Your task to perform on an android device: open a new tab in the chrome app Image 0: 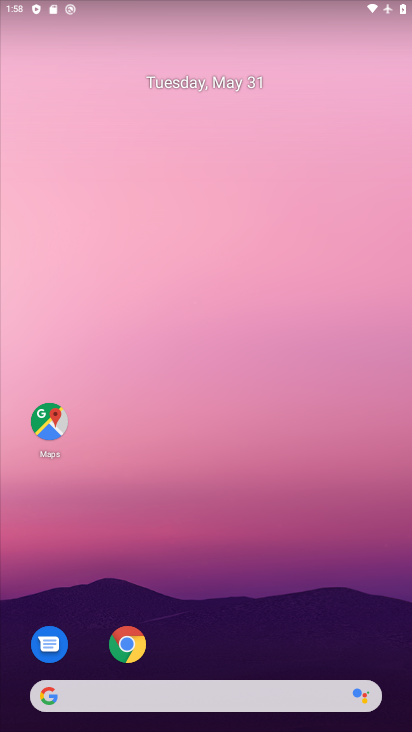
Step 0: click (124, 648)
Your task to perform on an android device: open a new tab in the chrome app Image 1: 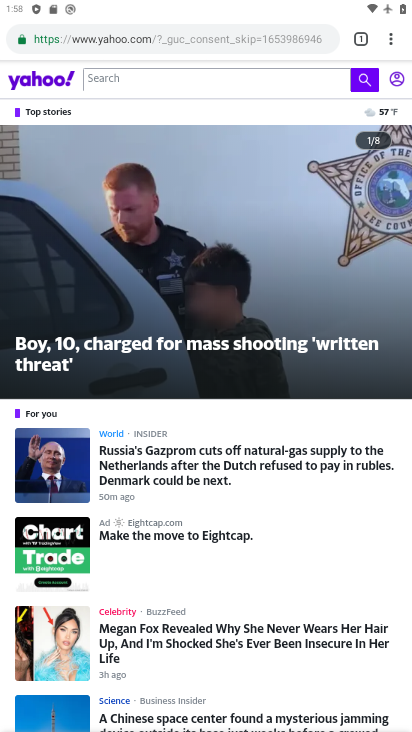
Step 1: click (396, 44)
Your task to perform on an android device: open a new tab in the chrome app Image 2: 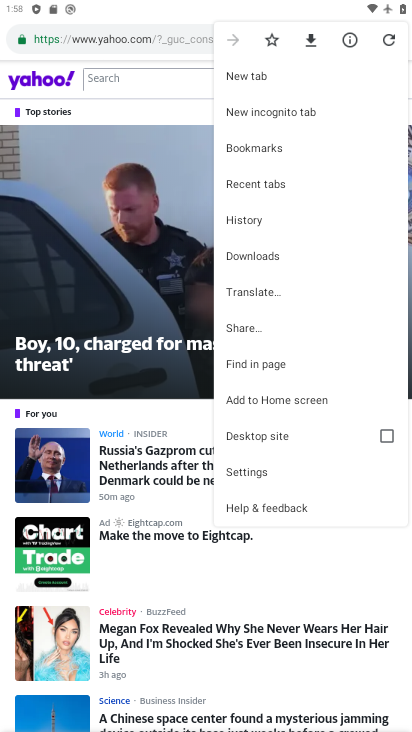
Step 2: click (285, 97)
Your task to perform on an android device: open a new tab in the chrome app Image 3: 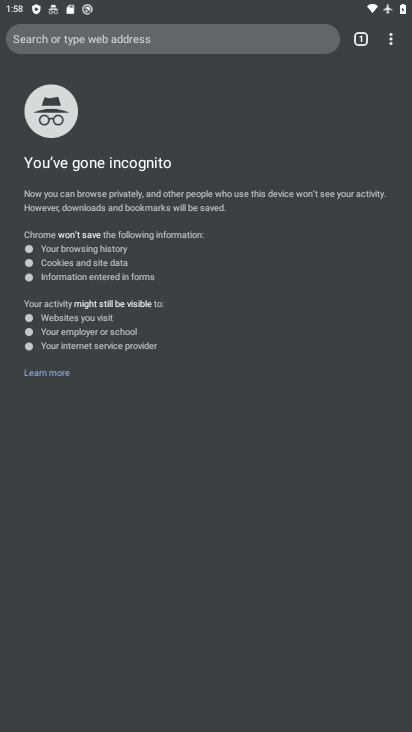
Step 3: press back button
Your task to perform on an android device: open a new tab in the chrome app Image 4: 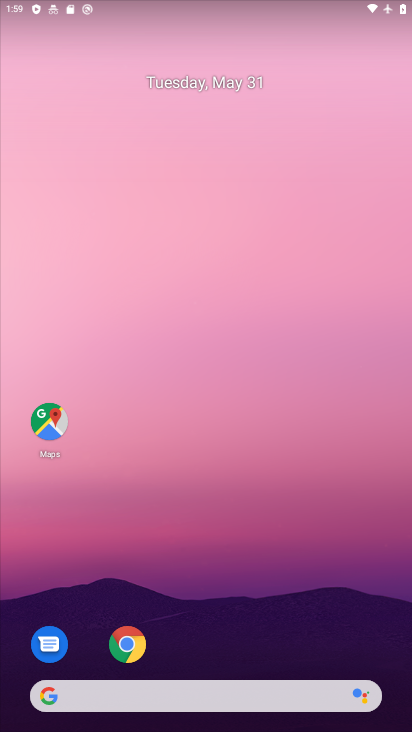
Step 4: click (121, 643)
Your task to perform on an android device: open a new tab in the chrome app Image 5: 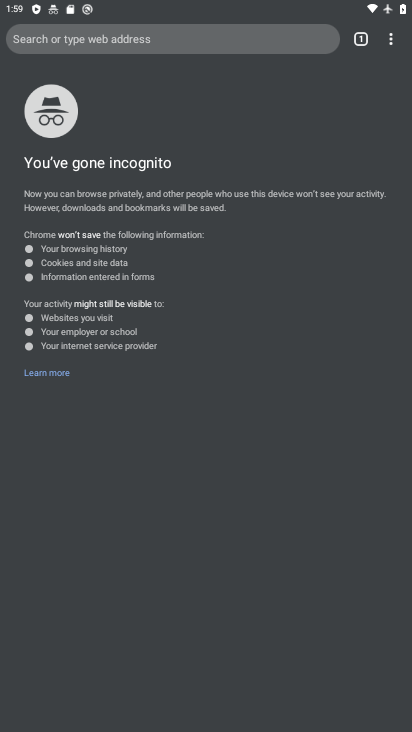
Step 5: click (398, 45)
Your task to perform on an android device: open a new tab in the chrome app Image 6: 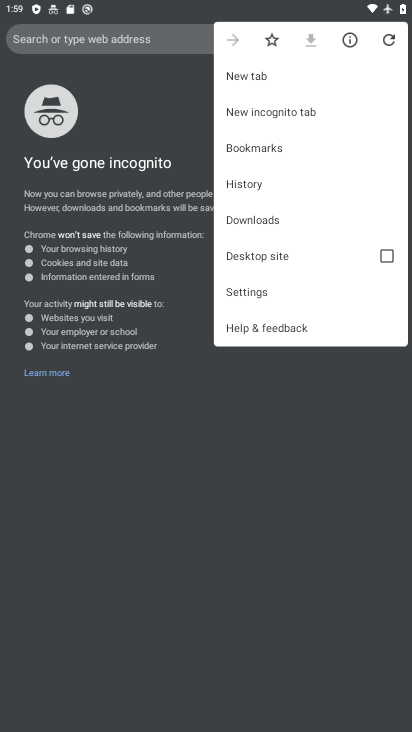
Step 6: click (272, 91)
Your task to perform on an android device: open a new tab in the chrome app Image 7: 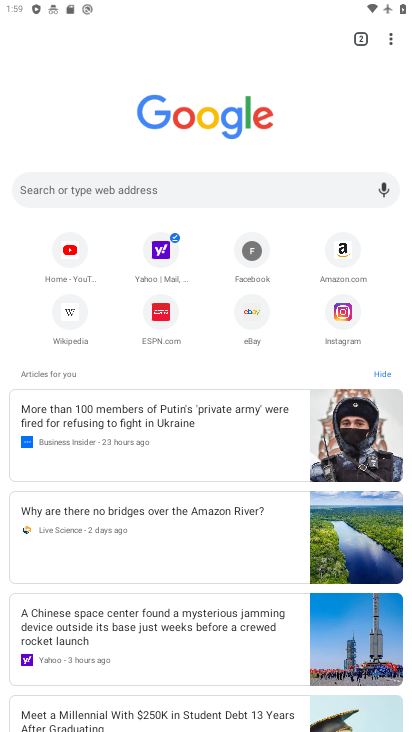
Step 7: task complete